Your task to perform on an android device: Open Google Chrome Image 0: 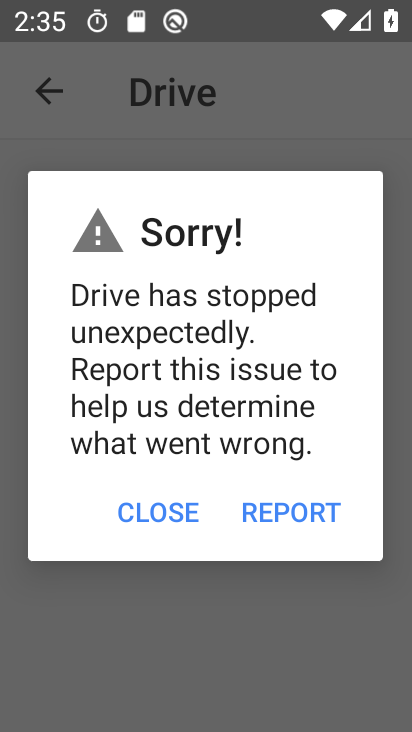
Step 0: press home button
Your task to perform on an android device: Open Google Chrome Image 1: 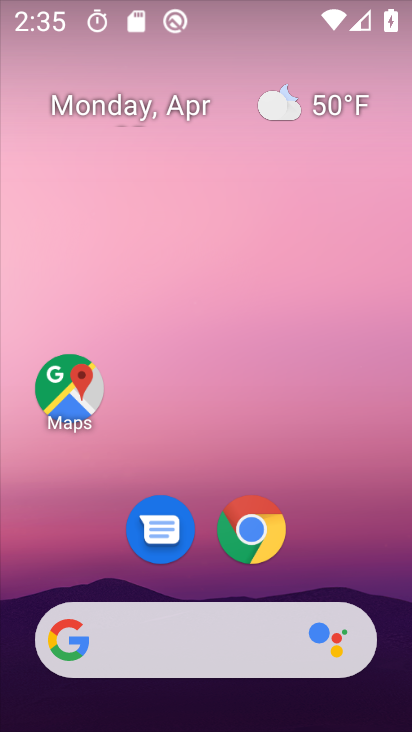
Step 1: click (382, 139)
Your task to perform on an android device: Open Google Chrome Image 2: 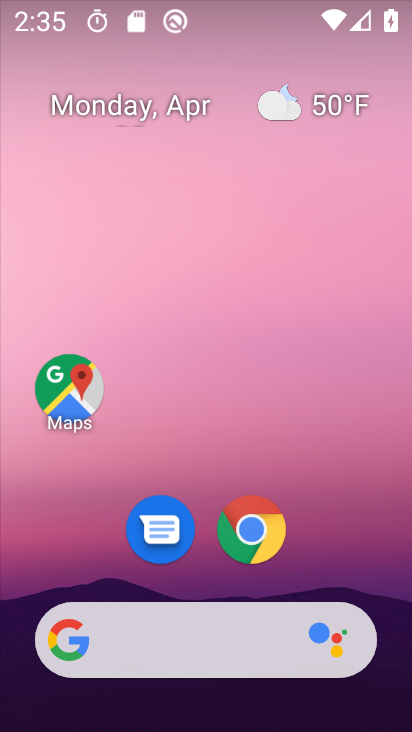
Step 2: drag from (401, 637) to (396, 135)
Your task to perform on an android device: Open Google Chrome Image 3: 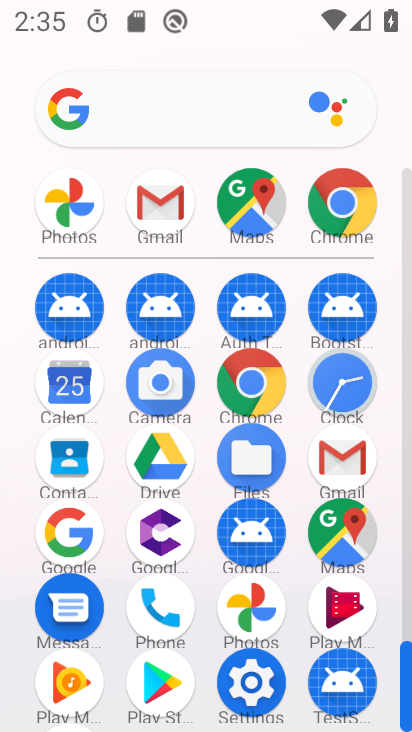
Step 3: click (326, 208)
Your task to perform on an android device: Open Google Chrome Image 4: 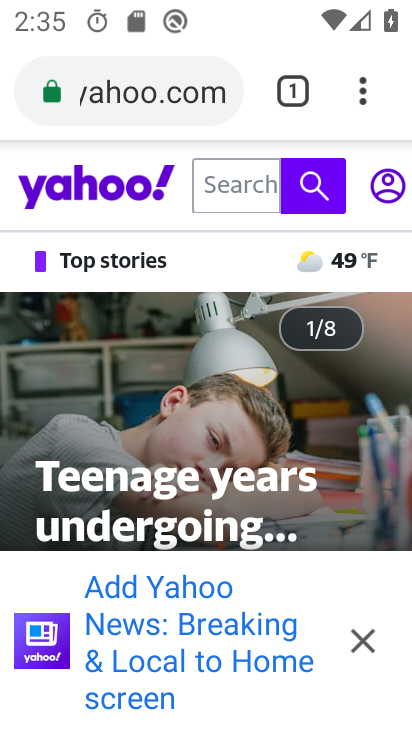
Step 4: task complete